Your task to perform on an android device: Open calendar and show me the fourth week of next month Image 0: 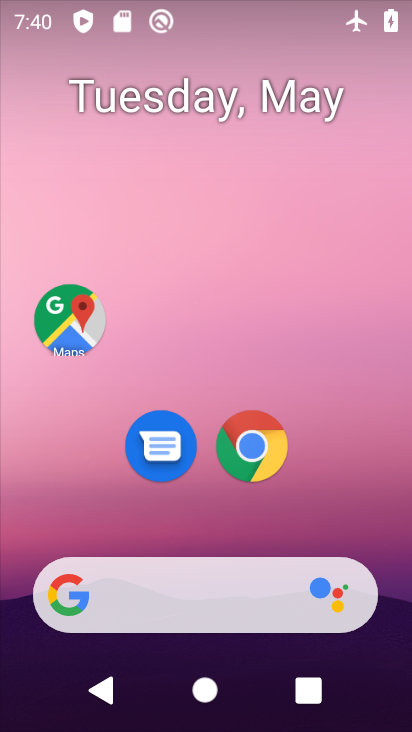
Step 0: drag from (349, 543) to (346, 22)
Your task to perform on an android device: Open calendar and show me the fourth week of next month Image 1: 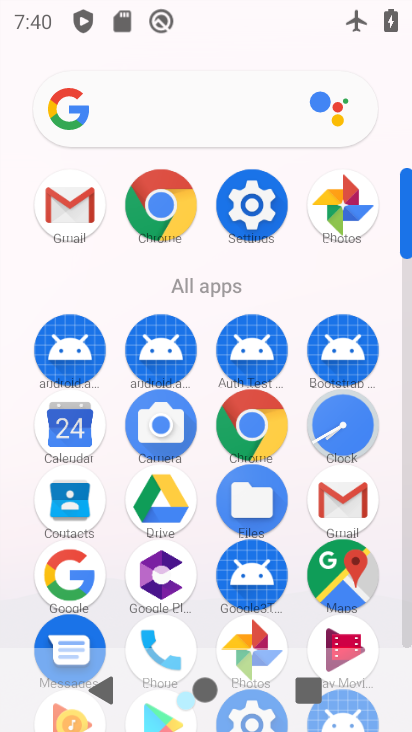
Step 1: click (60, 440)
Your task to perform on an android device: Open calendar and show me the fourth week of next month Image 2: 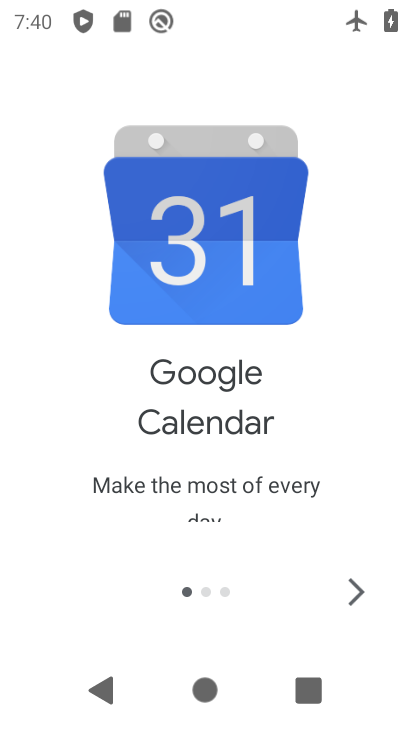
Step 2: click (354, 594)
Your task to perform on an android device: Open calendar and show me the fourth week of next month Image 3: 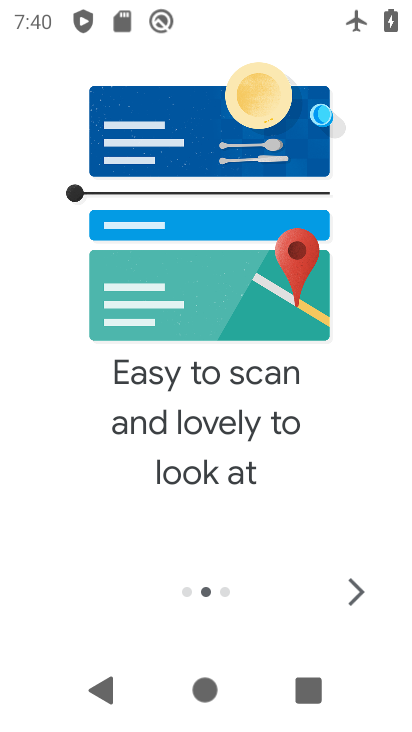
Step 3: click (354, 594)
Your task to perform on an android device: Open calendar and show me the fourth week of next month Image 4: 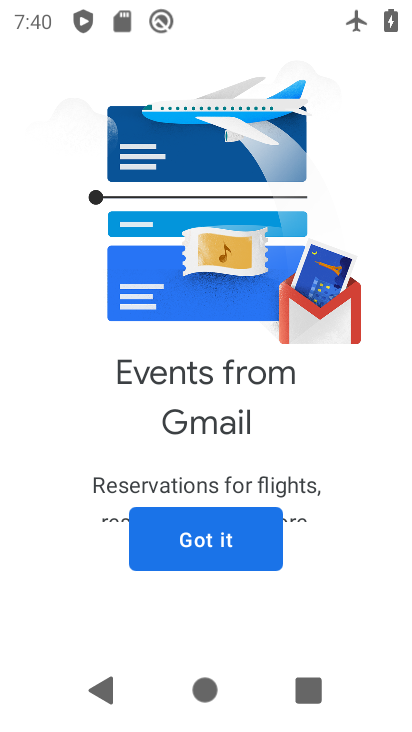
Step 4: click (206, 547)
Your task to perform on an android device: Open calendar and show me the fourth week of next month Image 5: 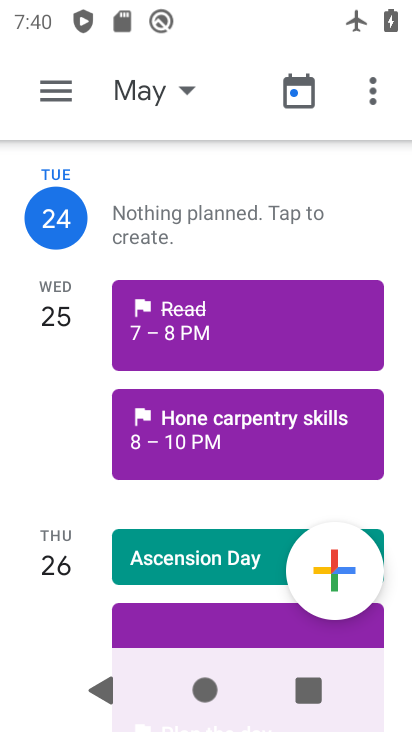
Step 5: click (186, 93)
Your task to perform on an android device: Open calendar and show me the fourth week of next month Image 6: 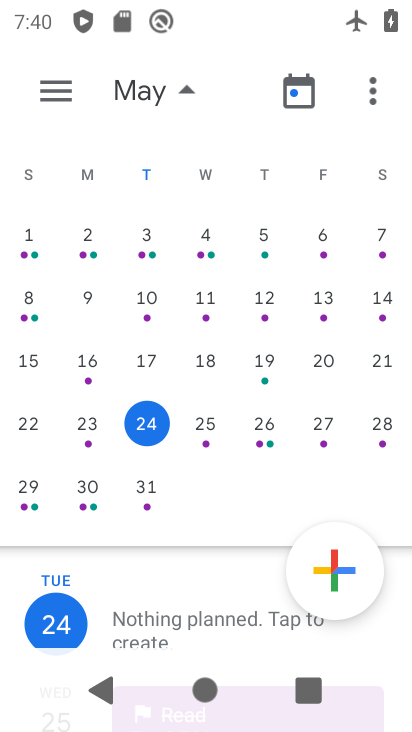
Step 6: drag from (322, 256) to (23, 469)
Your task to perform on an android device: Open calendar and show me the fourth week of next month Image 7: 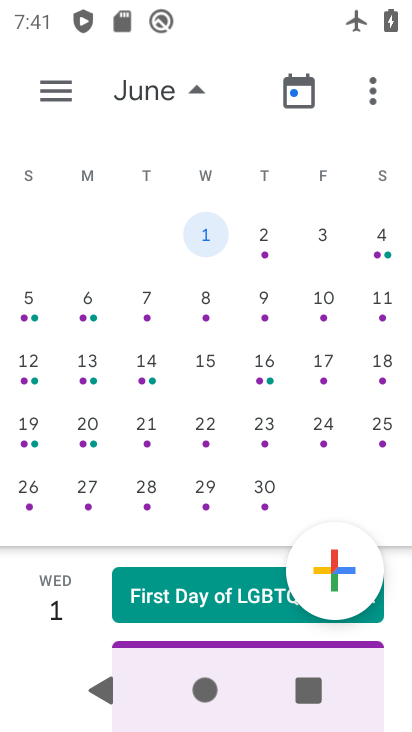
Step 7: click (53, 90)
Your task to perform on an android device: Open calendar and show me the fourth week of next month Image 8: 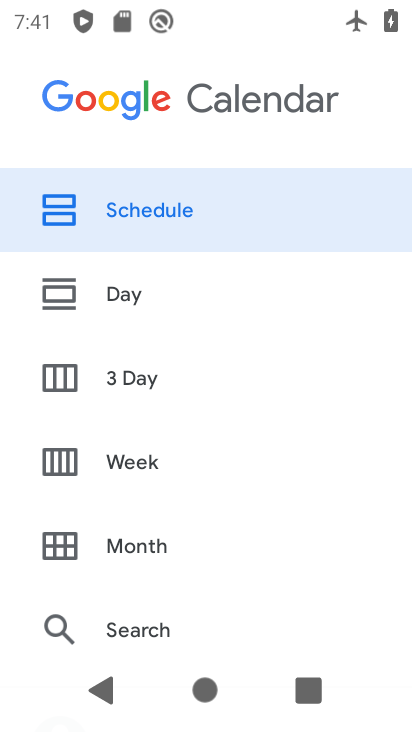
Step 8: click (120, 461)
Your task to perform on an android device: Open calendar and show me the fourth week of next month Image 9: 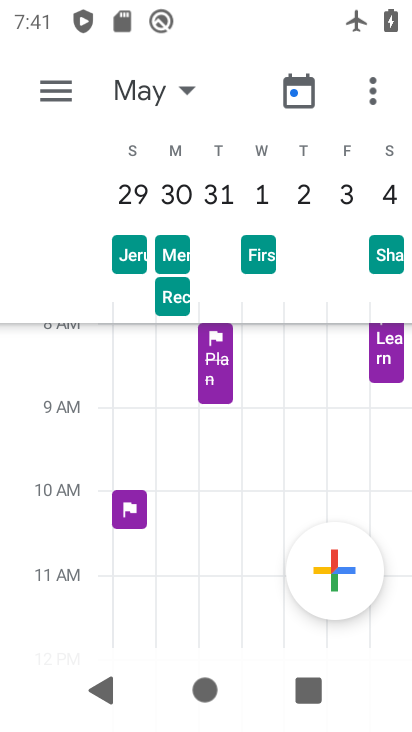
Step 9: task complete